Your task to perform on an android device: check battery use Image 0: 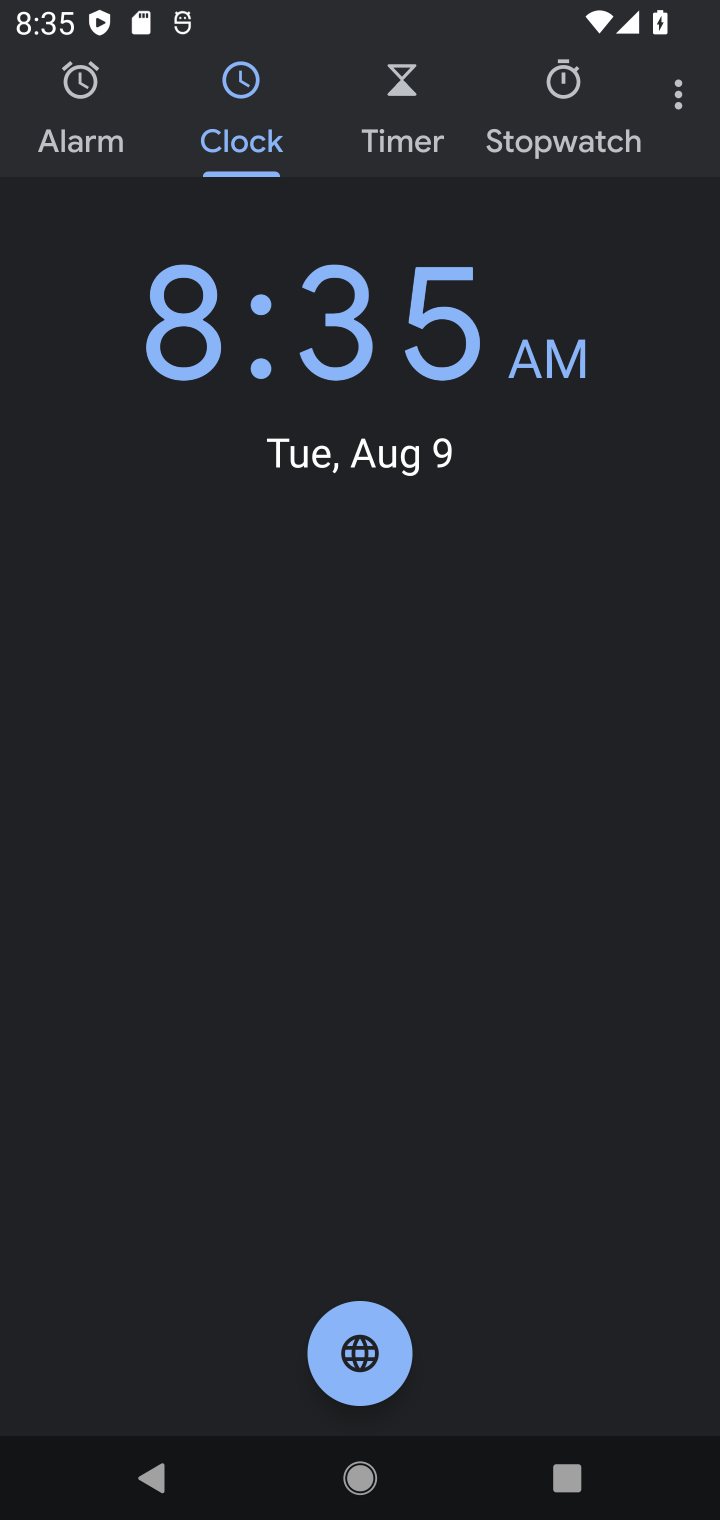
Step 0: press home button
Your task to perform on an android device: check battery use Image 1: 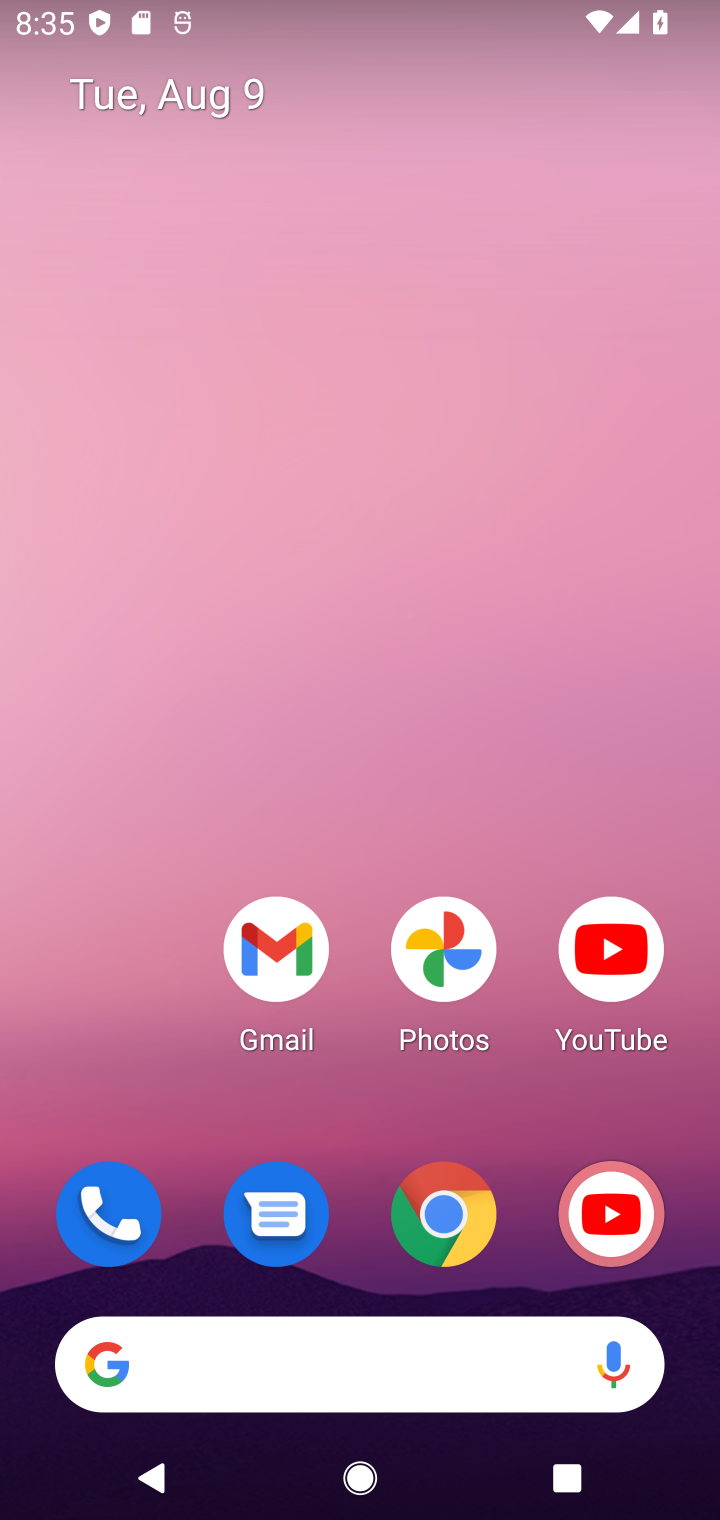
Step 1: drag from (43, 1419) to (498, 193)
Your task to perform on an android device: check battery use Image 2: 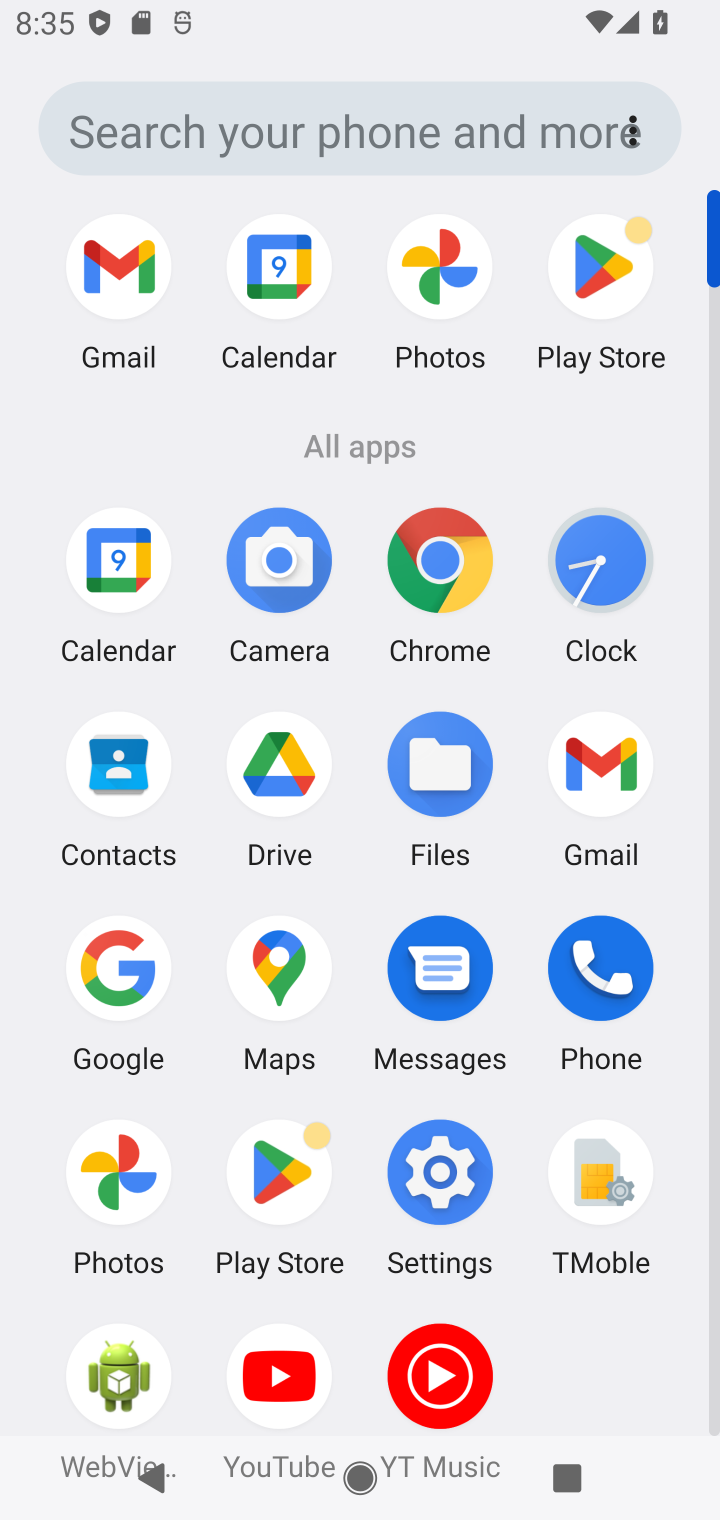
Step 2: click (442, 1201)
Your task to perform on an android device: check battery use Image 3: 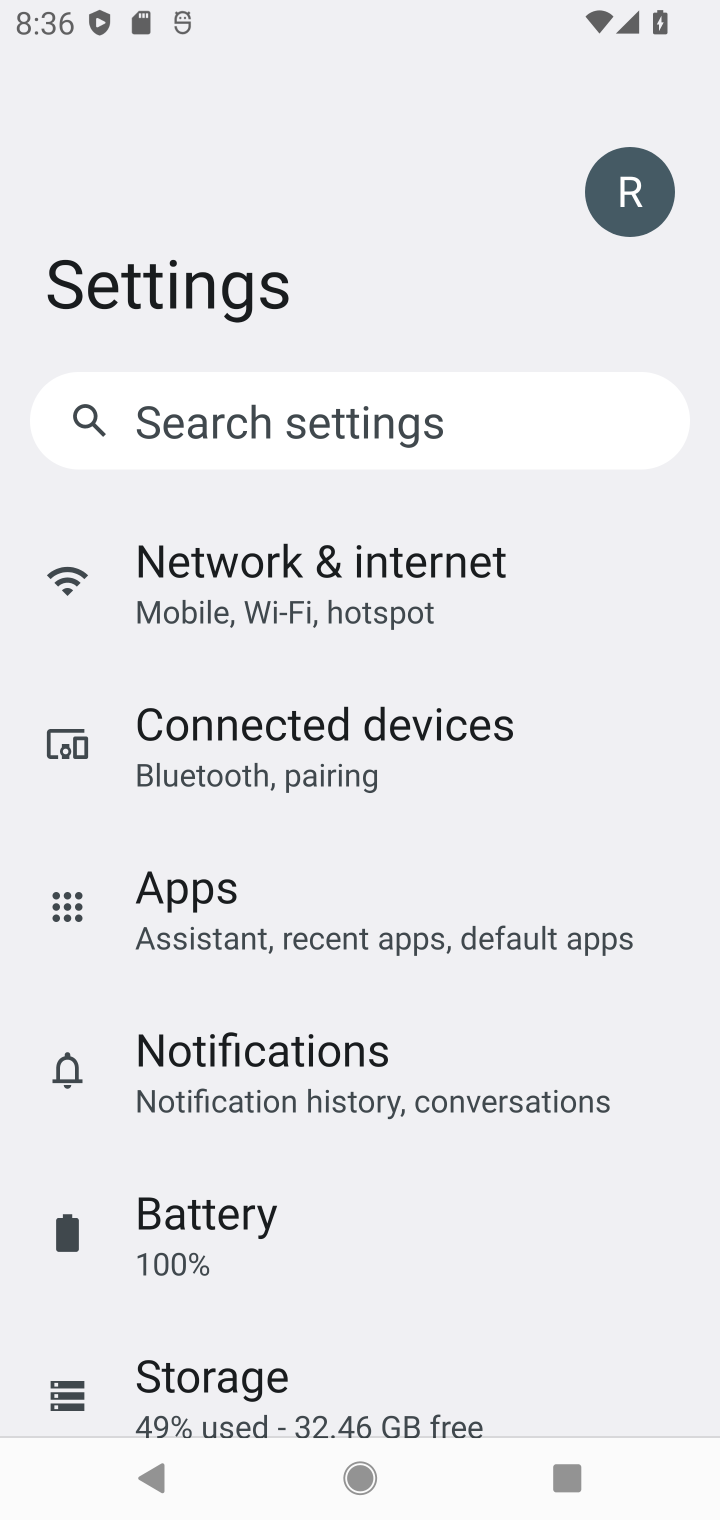
Step 3: click (260, 1187)
Your task to perform on an android device: check battery use Image 4: 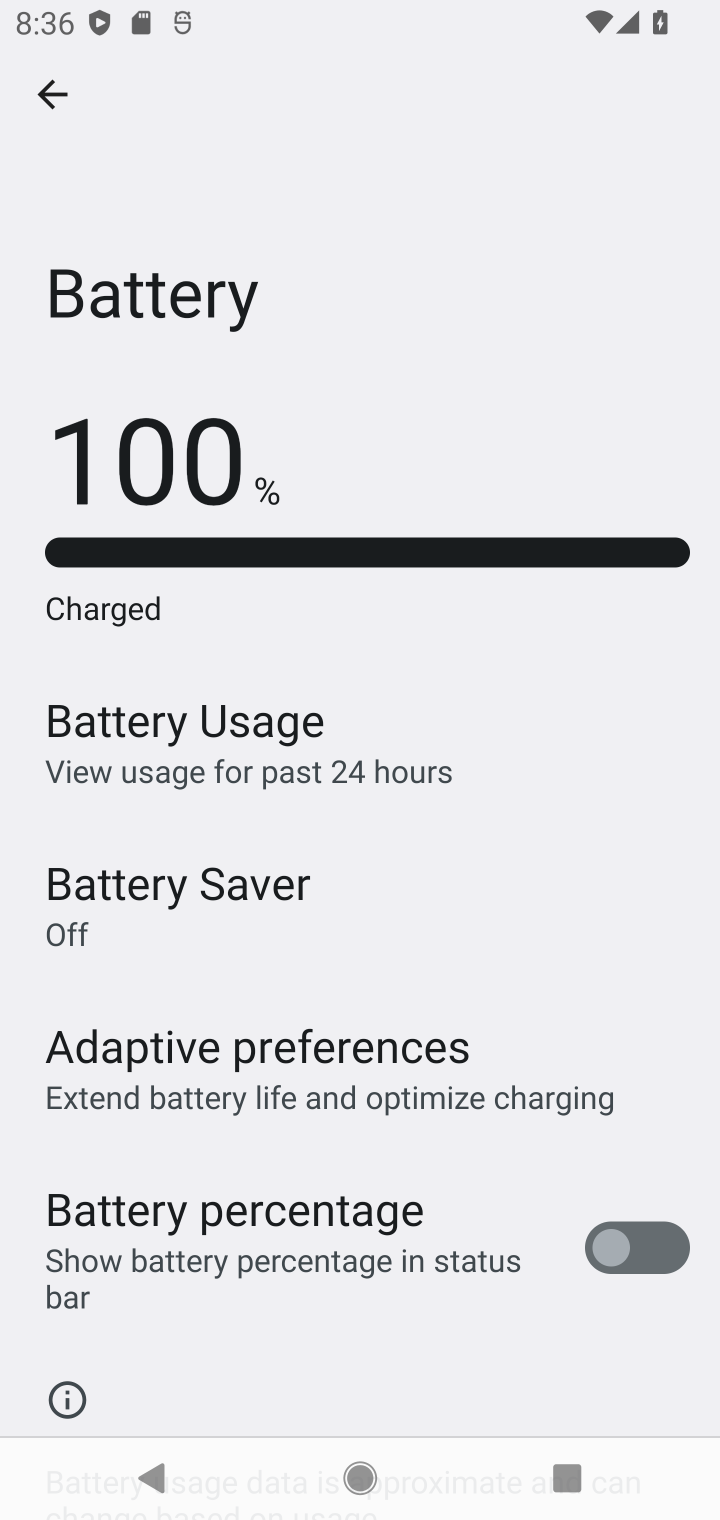
Step 4: task complete